Your task to perform on an android device: Go to calendar. Show me events next week Image 0: 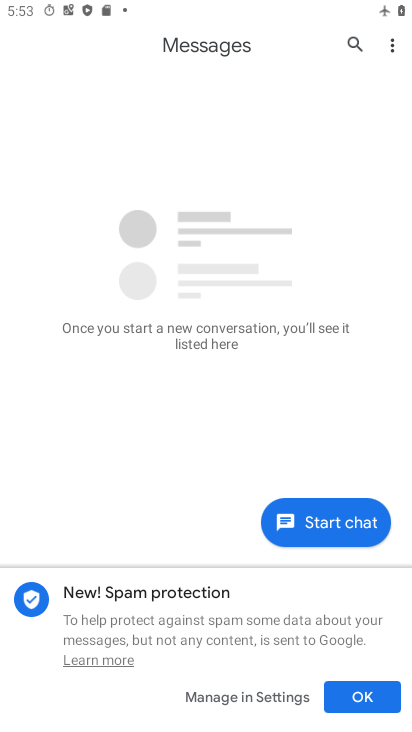
Step 0: press home button
Your task to perform on an android device: Go to calendar. Show me events next week Image 1: 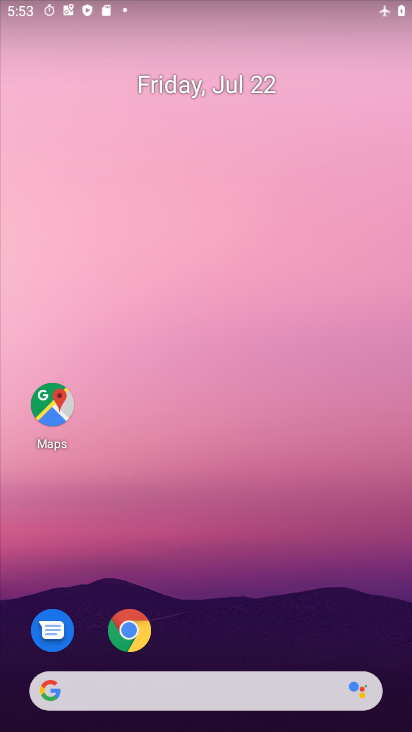
Step 1: drag from (224, 521) to (230, 46)
Your task to perform on an android device: Go to calendar. Show me events next week Image 2: 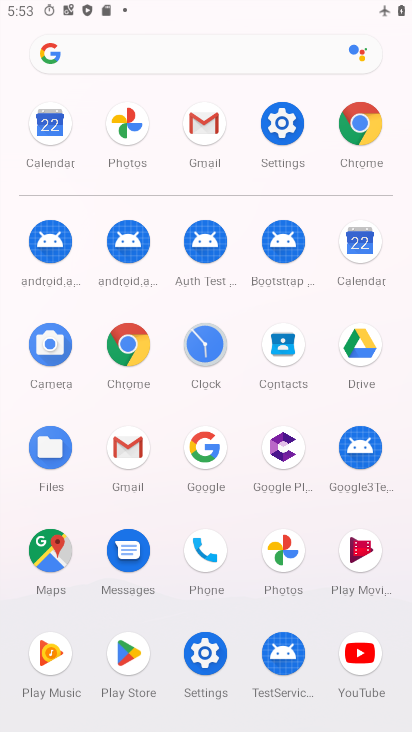
Step 2: click (364, 228)
Your task to perform on an android device: Go to calendar. Show me events next week Image 3: 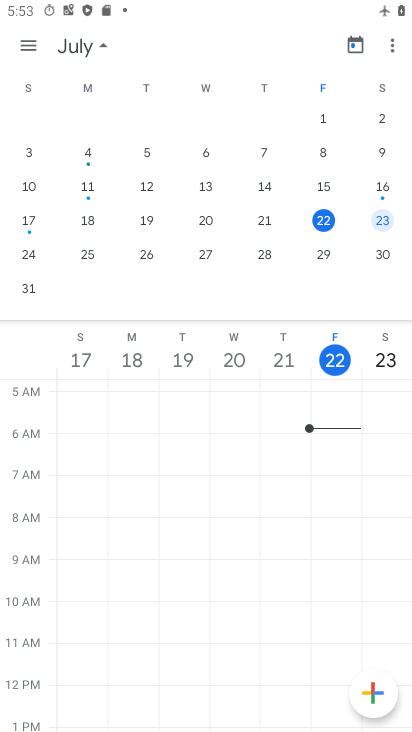
Step 3: click (205, 248)
Your task to perform on an android device: Go to calendar. Show me events next week Image 4: 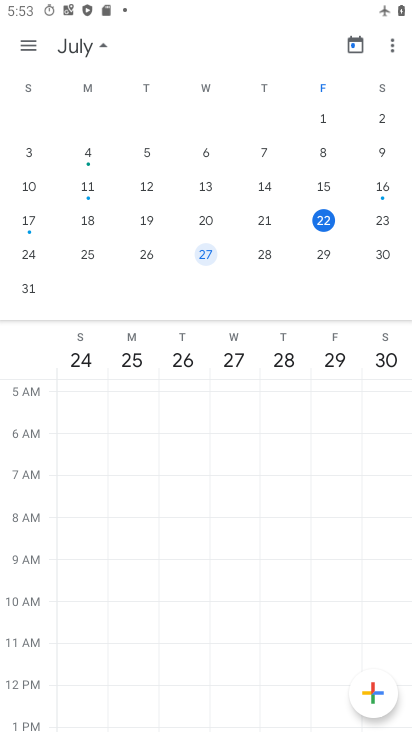
Step 4: task complete